Your task to perform on an android device: Open Yahoo.com Image 0: 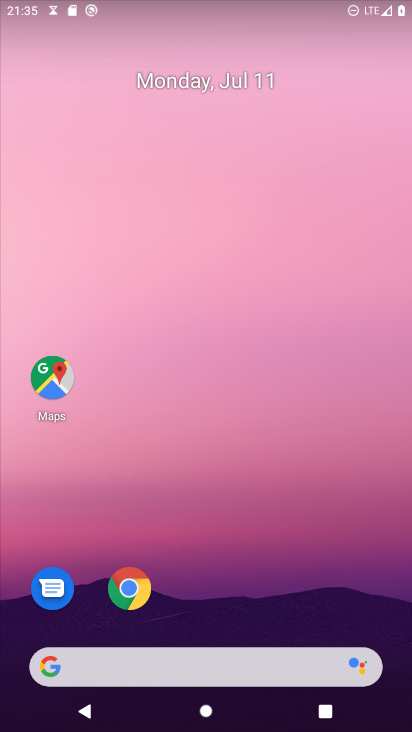
Step 0: press home button
Your task to perform on an android device: Open Yahoo.com Image 1: 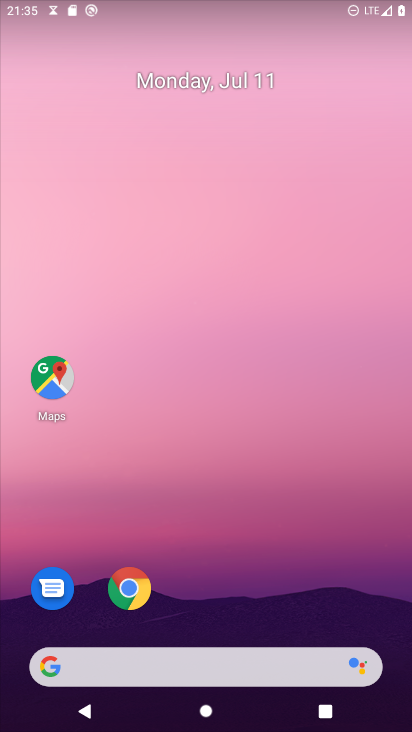
Step 1: click (35, 673)
Your task to perform on an android device: Open Yahoo.com Image 2: 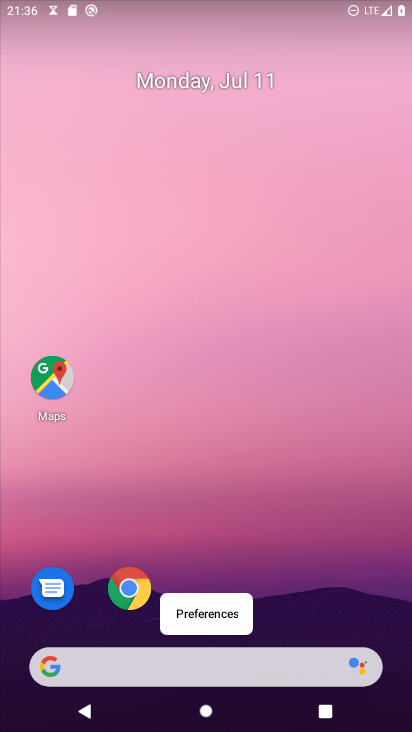
Step 2: click (50, 671)
Your task to perform on an android device: Open Yahoo.com Image 3: 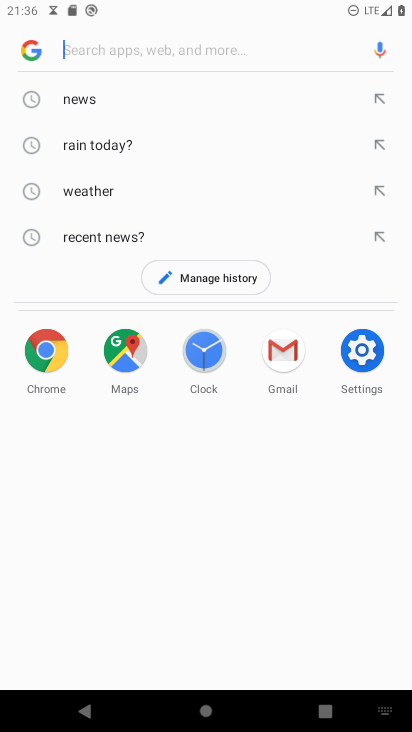
Step 3: type " Yahoo.com"
Your task to perform on an android device: Open Yahoo.com Image 4: 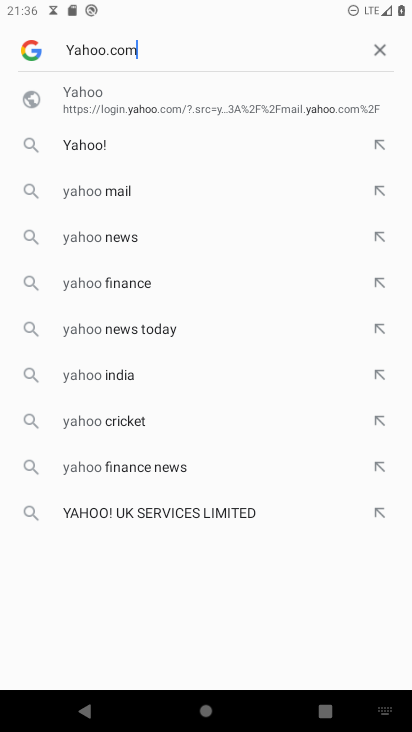
Step 4: press enter
Your task to perform on an android device: Open Yahoo.com Image 5: 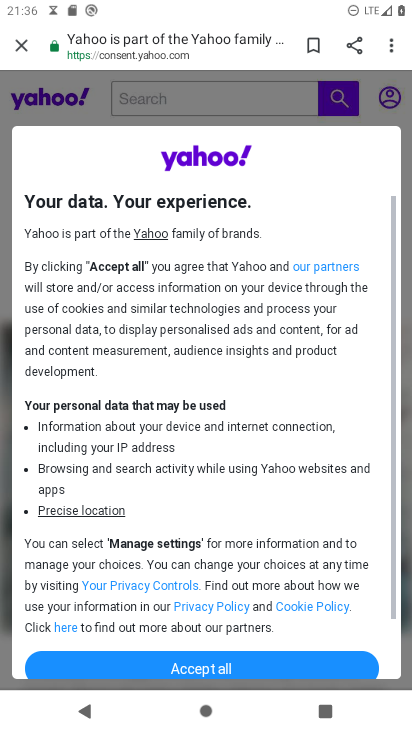
Step 5: click (153, 670)
Your task to perform on an android device: Open Yahoo.com Image 6: 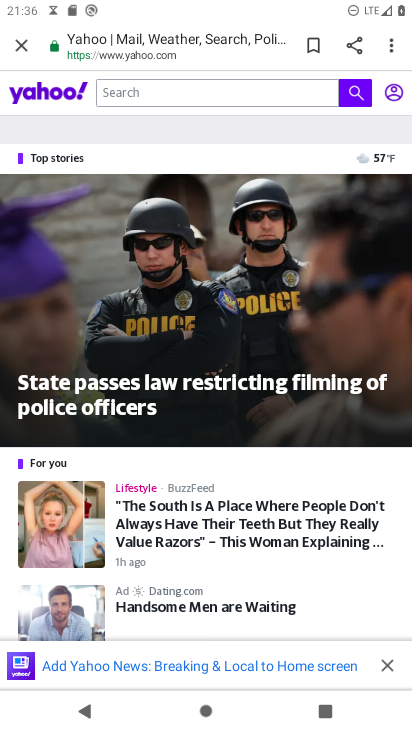
Step 6: task complete